Your task to perform on an android device: empty trash in the gmail app Image 0: 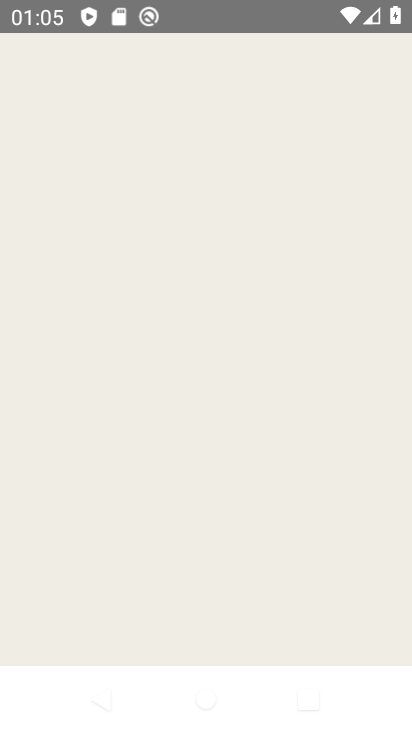
Step 0: click (345, 73)
Your task to perform on an android device: empty trash in the gmail app Image 1: 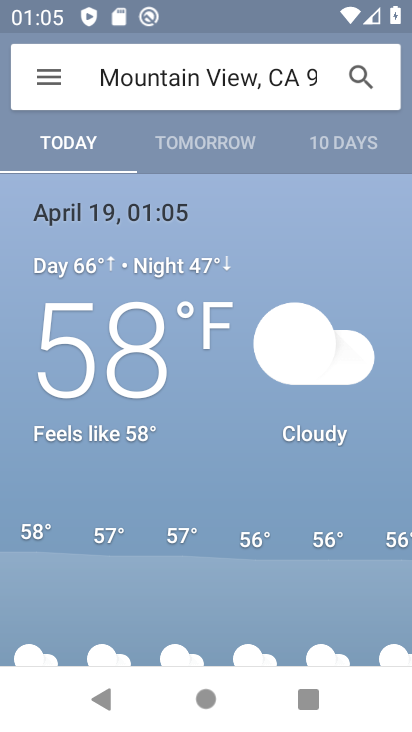
Step 1: press home button
Your task to perform on an android device: empty trash in the gmail app Image 2: 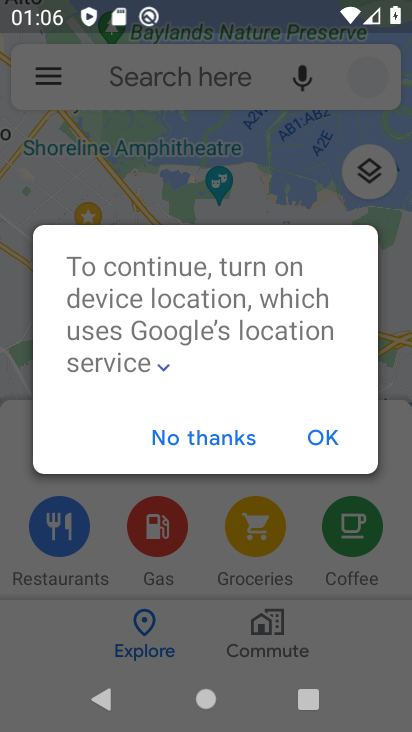
Step 2: press home button
Your task to perform on an android device: empty trash in the gmail app Image 3: 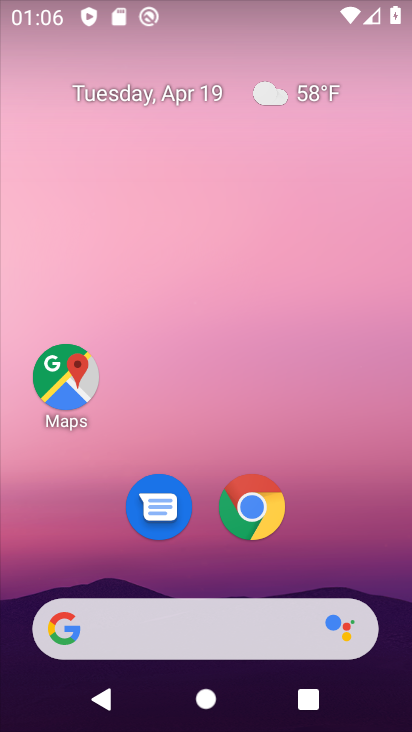
Step 3: drag from (171, 565) to (241, 166)
Your task to perform on an android device: empty trash in the gmail app Image 4: 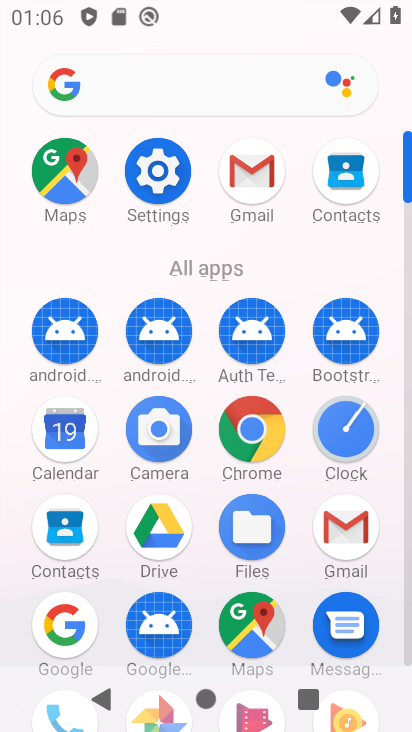
Step 4: click (245, 164)
Your task to perform on an android device: empty trash in the gmail app Image 5: 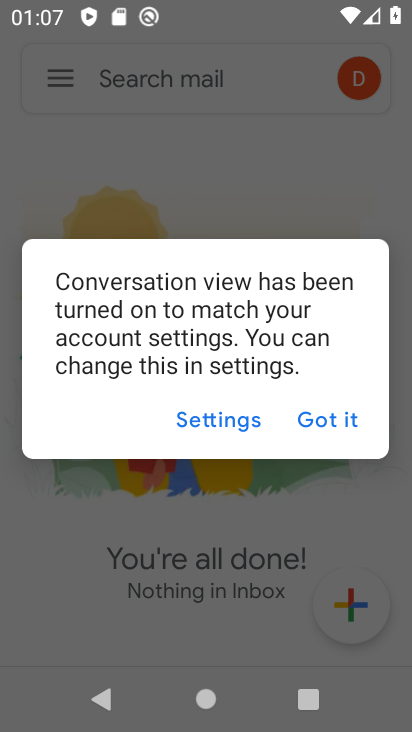
Step 5: press home button
Your task to perform on an android device: empty trash in the gmail app Image 6: 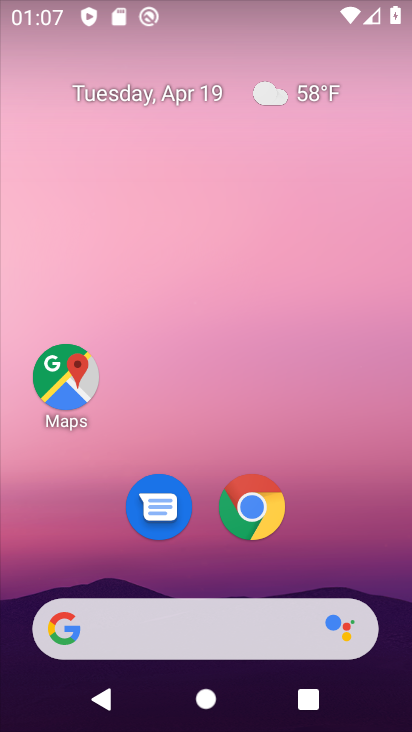
Step 6: drag from (224, 576) to (239, 140)
Your task to perform on an android device: empty trash in the gmail app Image 7: 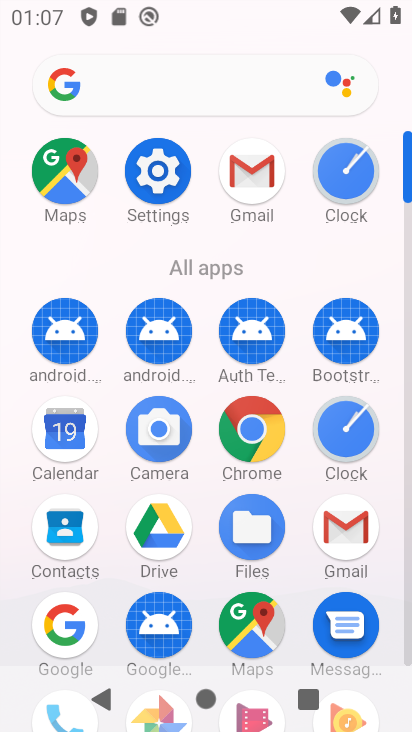
Step 7: click (344, 538)
Your task to perform on an android device: empty trash in the gmail app Image 8: 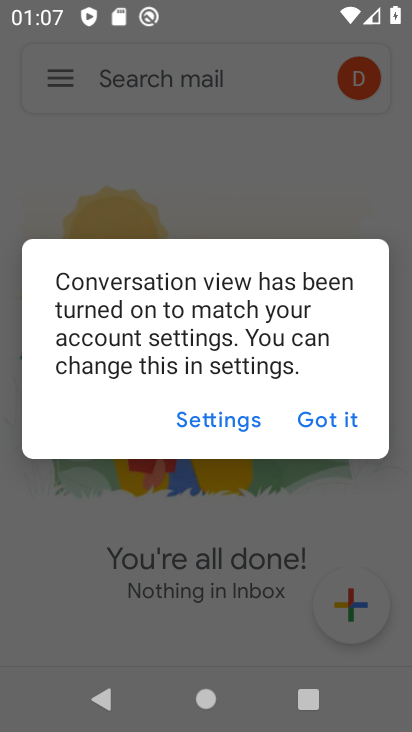
Step 8: click (304, 413)
Your task to perform on an android device: empty trash in the gmail app Image 9: 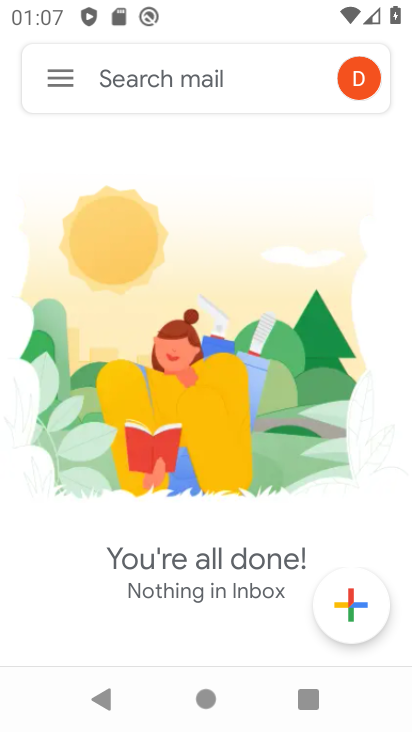
Step 9: click (64, 85)
Your task to perform on an android device: empty trash in the gmail app Image 10: 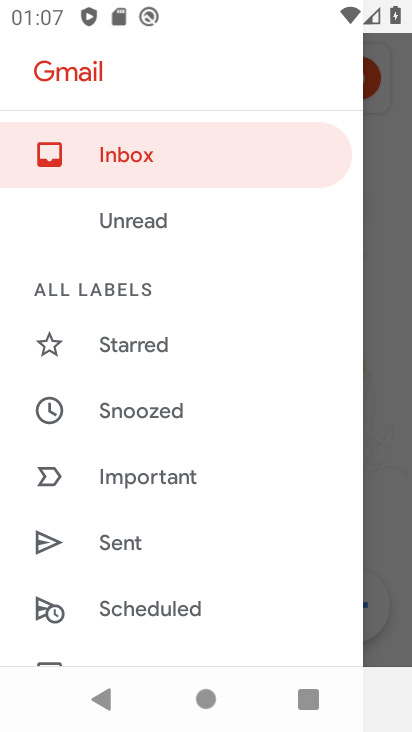
Step 10: drag from (125, 584) to (160, 308)
Your task to perform on an android device: empty trash in the gmail app Image 11: 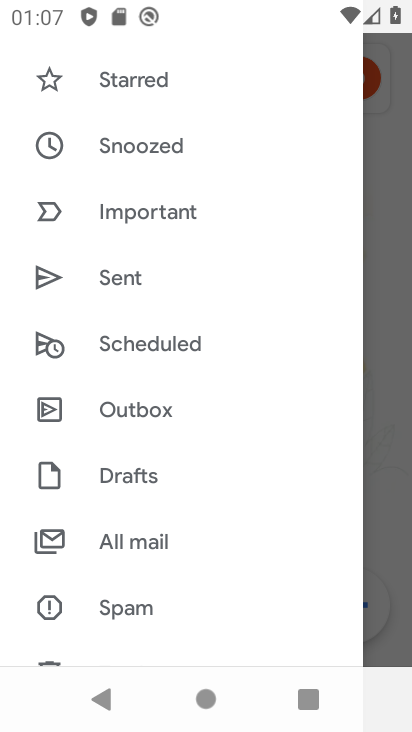
Step 11: drag from (141, 530) to (172, 240)
Your task to perform on an android device: empty trash in the gmail app Image 12: 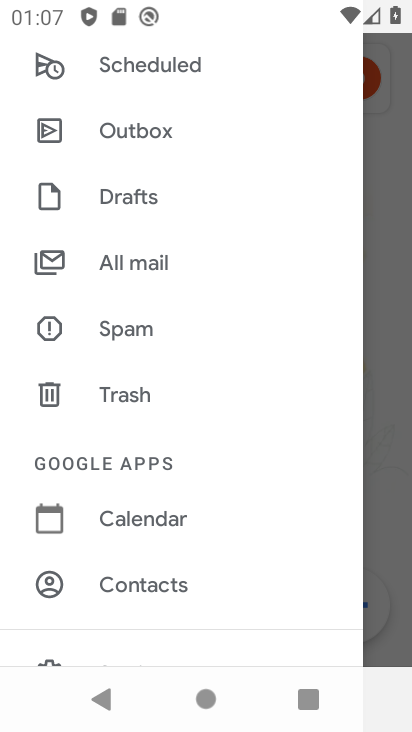
Step 12: click (129, 415)
Your task to perform on an android device: empty trash in the gmail app Image 13: 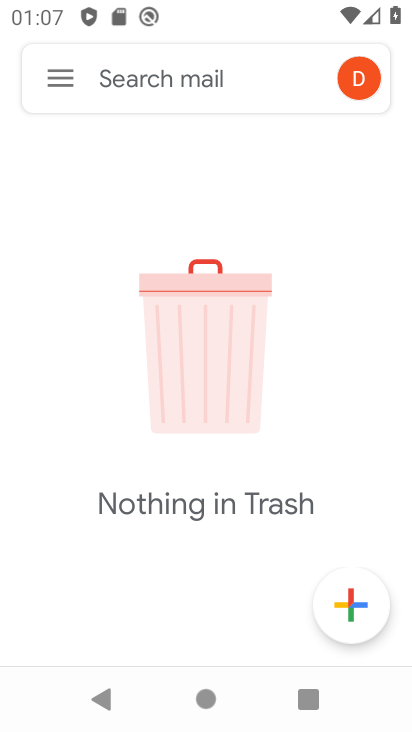
Step 13: task complete